Your task to perform on an android device: change timer sound Image 0: 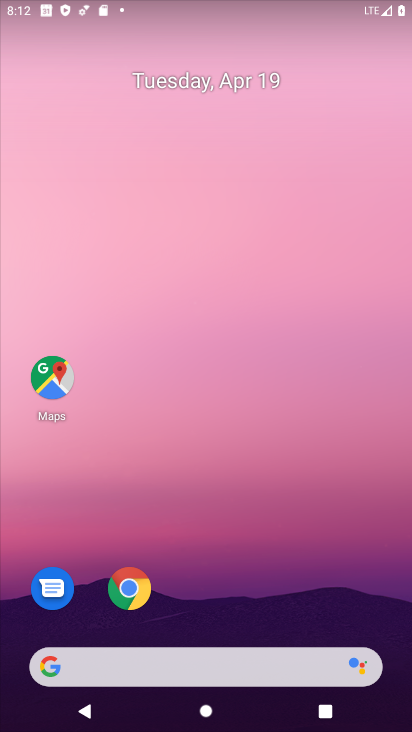
Step 0: drag from (220, 688) to (202, 0)
Your task to perform on an android device: change timer sound Image 1: 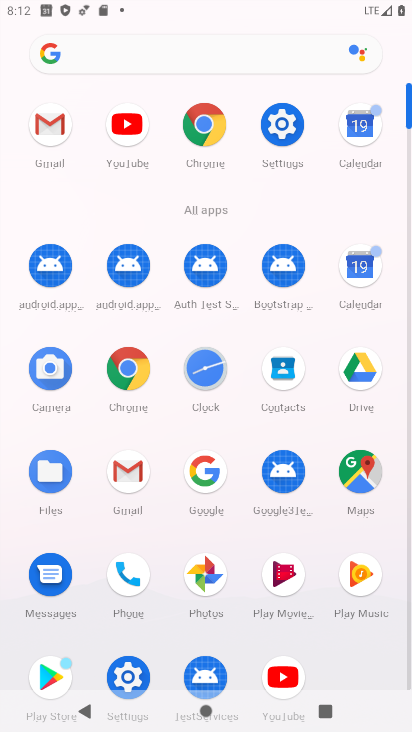
Step 1: click (206, 371)
Your task to perform on an android device: change timer sound Image 2: 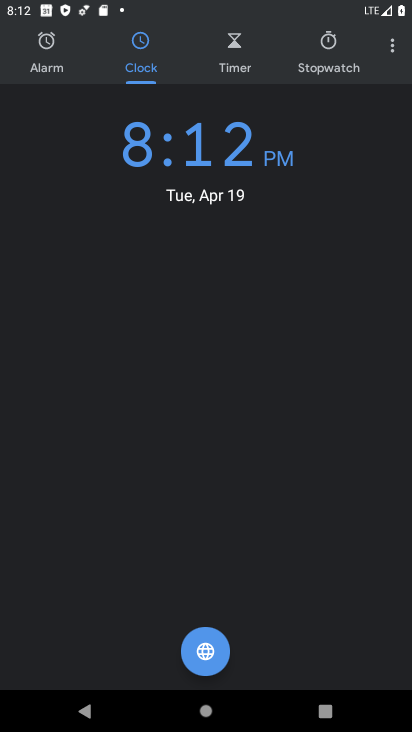
Step 2: click (392, 44)
Your task to perform on an android device: change timer sound Image 3: 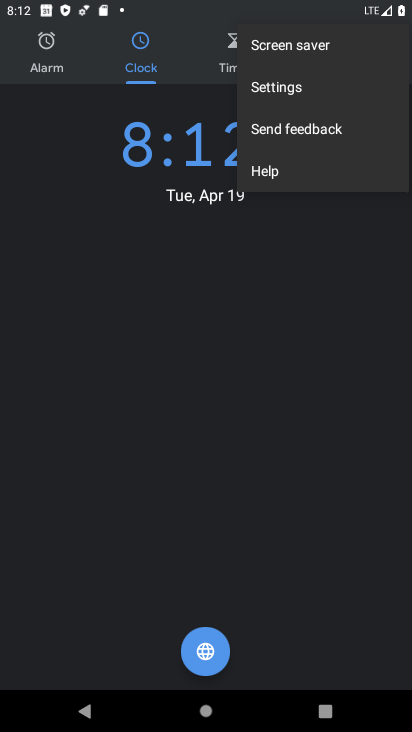
Step 3: click (265, 86)
Your task to perform on an android device: change timer sound Image 4: 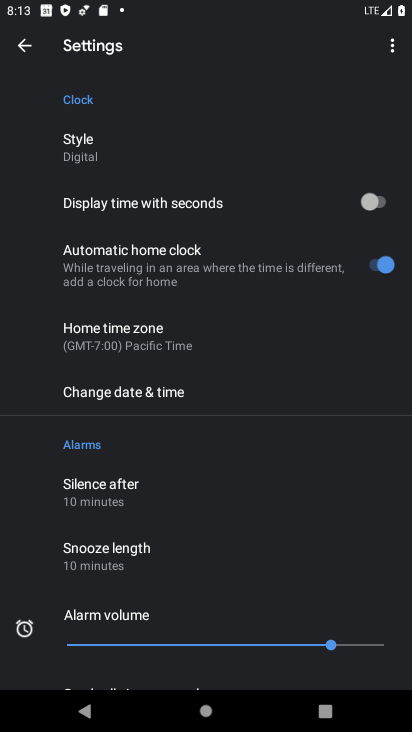
Step 4: drag from (163, 600) to (186, 161)
Your task to perform on an android device: change timer sound Image 5: 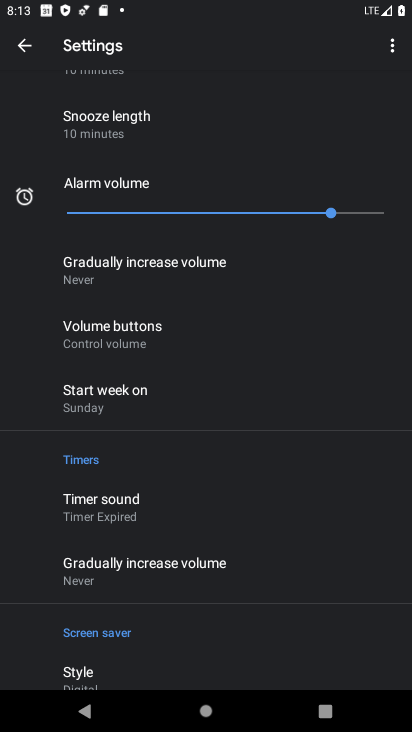
Step 5: click (110, 499)
Your task to perform on an android device: change timer sound Image 6: 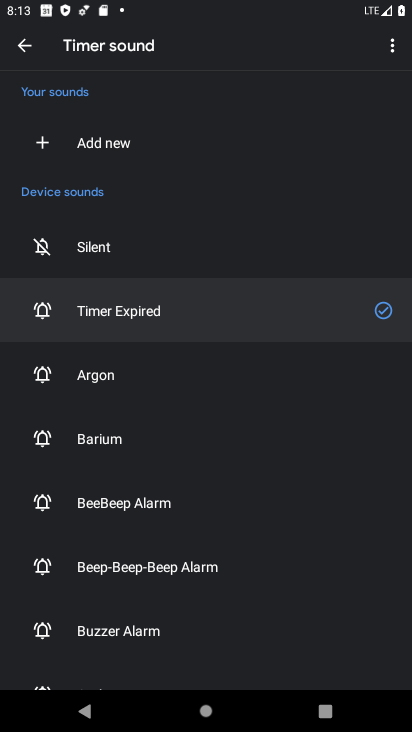
Step 6: click (124, 502)
Your task to perform on an android device: change timer sound Image 7: 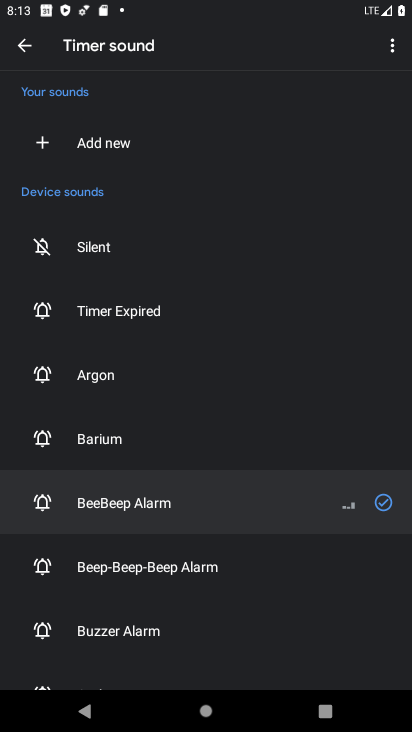
Step 7: task complete